Your task to perform on an android device: toggle translation in the chrome app Image 0: 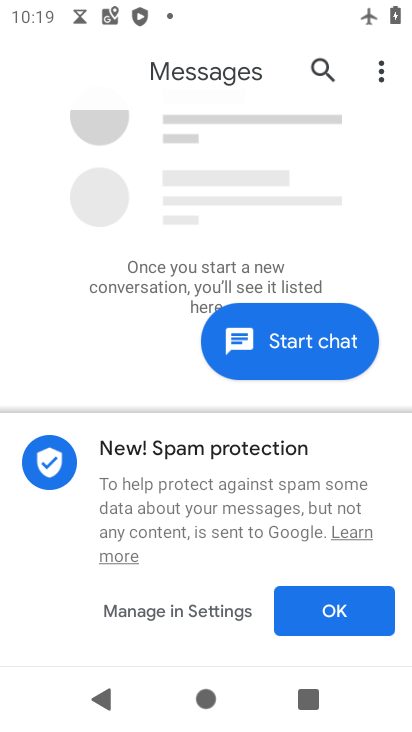
Step 0: drag from (256, 574) to (261, 266)
Your task to perform on an android device: toggle translation in the chrome app Image 1: 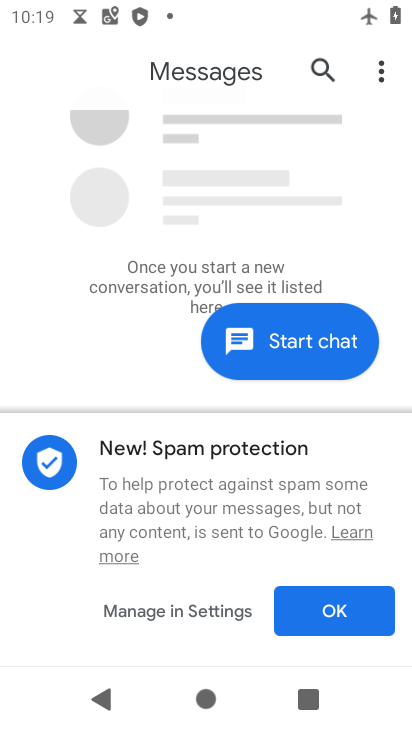
Step 1: press home button
Your task to perform on an android device: toggle translation in the chrome app Image 2: 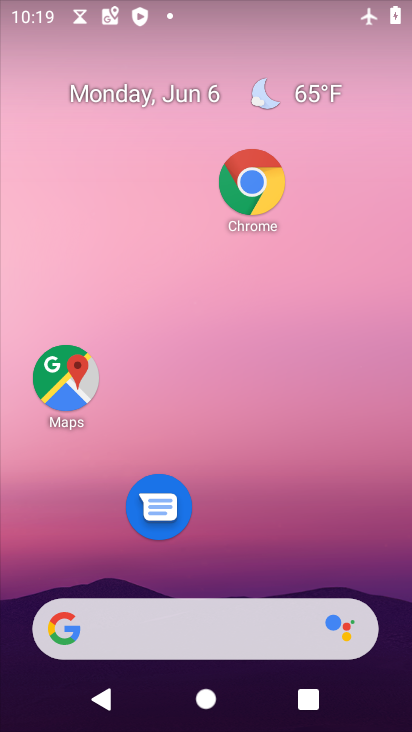
Step 2: click (246, 173)
Your task to perform on an android device: toggle translation in the chrome app Image 3: 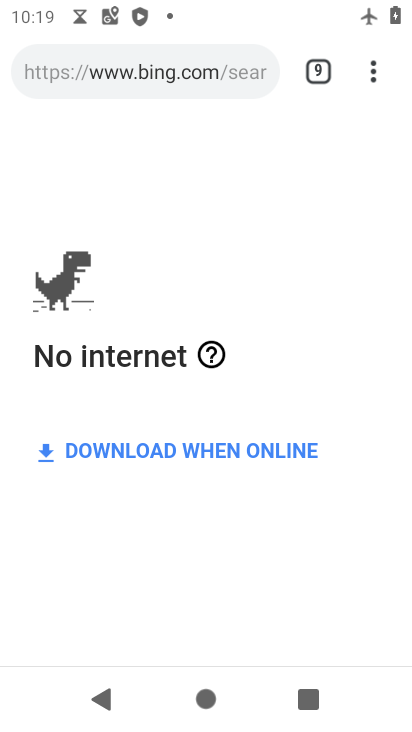
Step 3: click (385, 75)
Your task to perform on an android device: toggle translation in the chrome app Image 4: 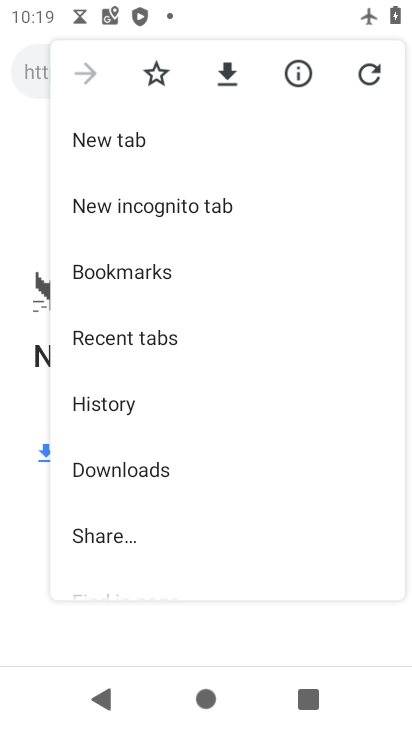
Step 4: drag from (146, 510) to (159, 273)
Your task to perform on an android device: toggle translation in the chrome app Image 5: 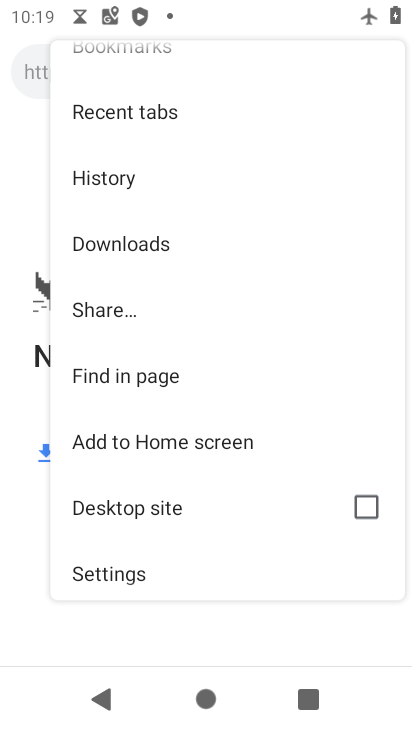
Step 5: click (142, 568)
Your task to perform on an android device: toggle translation in the chrome app Image 6: 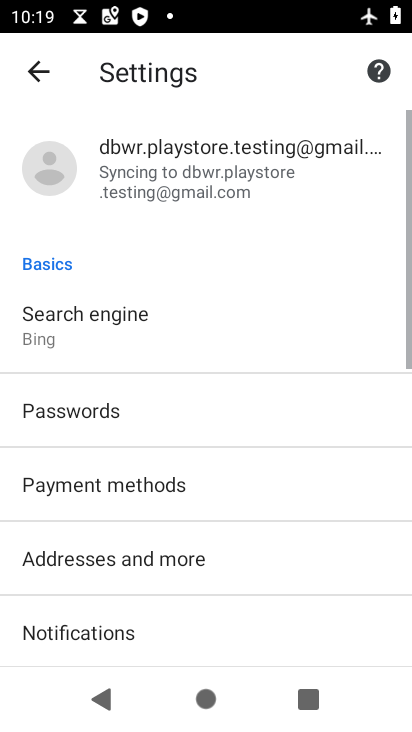
Step 6: drag from (162, 539) to (181, 283)
Your task to perform on an android device: toggle translation in the chrome app Image 7: 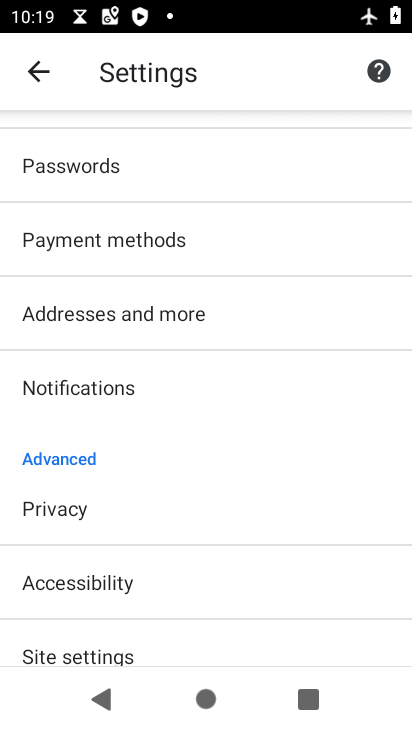
Step 7: drag from (136, 577) to (154, 318)
Your task to perform on an android device: toggle translation in the chrome app Image 8: 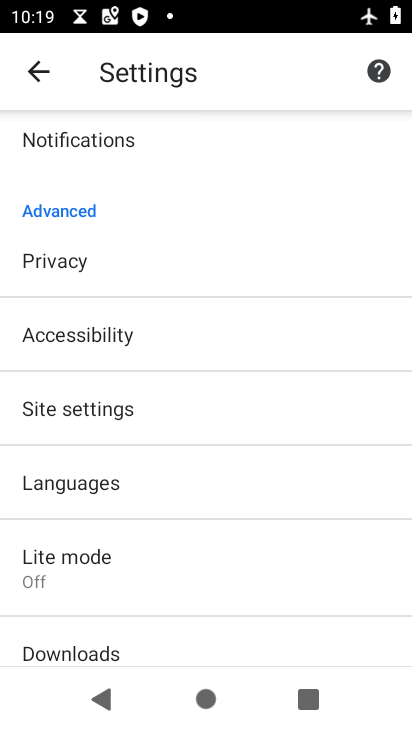
Step 8: click (131, 488)
Your task to perform on an android device: toggle translation in the chrome app Image 9: 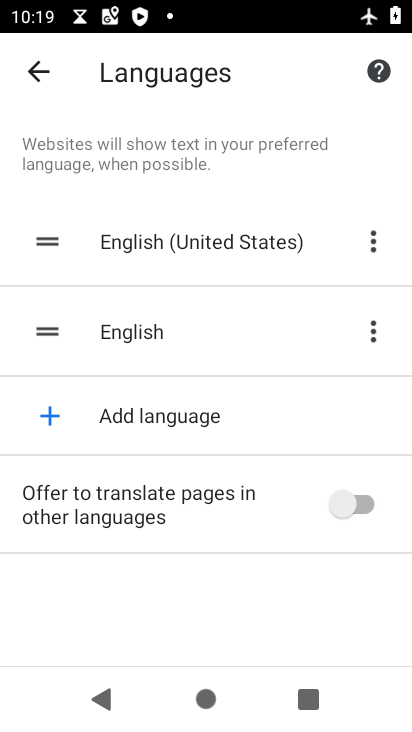
Step 9: click (349, 514)
Your task to perform on an android device: toggle translation in the chrome app Image 10: 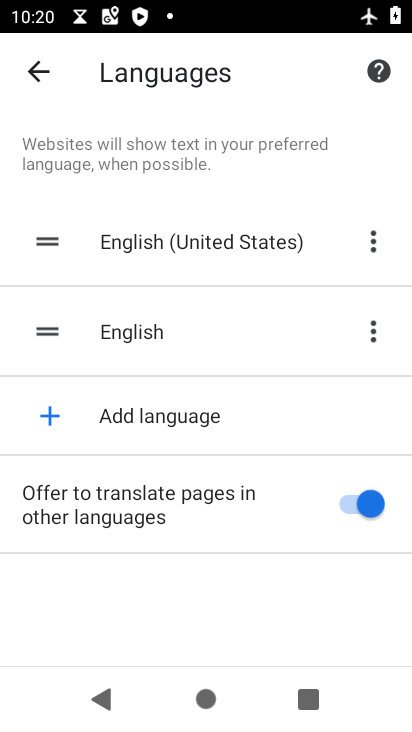
Step 10: task complete